Your task to perform on an android device: Open Yahoo.com Image 0: 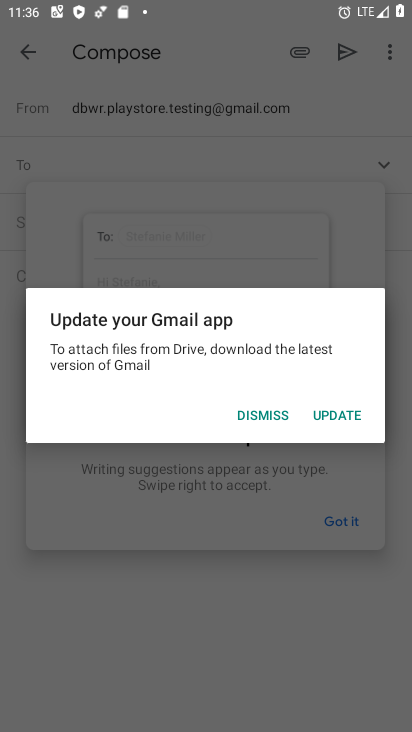
Step 0: press home button
Your task to perform on an android device: Open Yahoo.com Image 1: 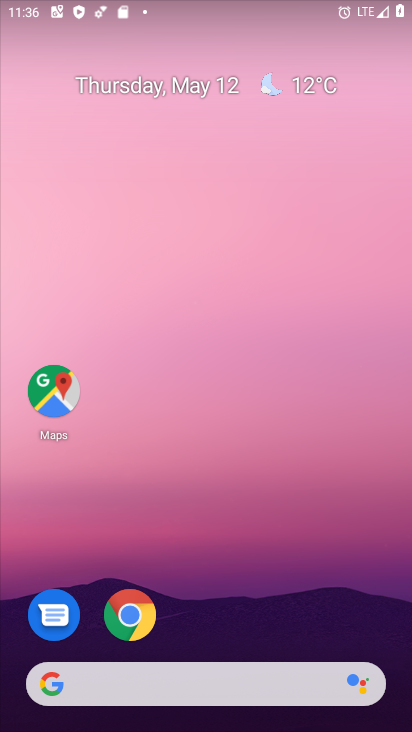
Step 1: click (229, 692)
Your task to perform on an android device: Open Yahoo.com Image 2: 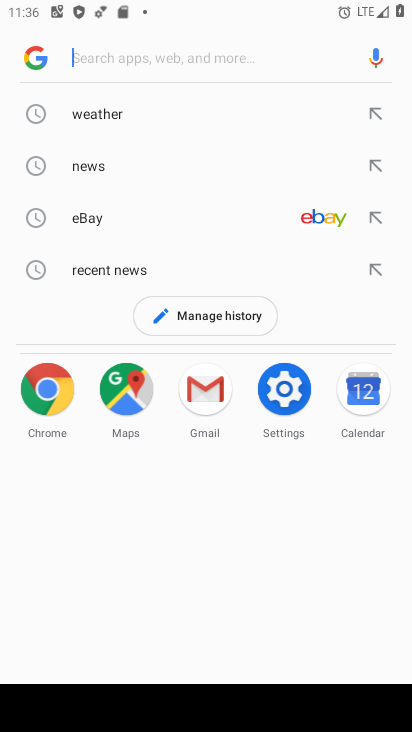
Step 2: type "yahoo.com"
Your task to perform on an android device: Open Yahoo.com Image 3: 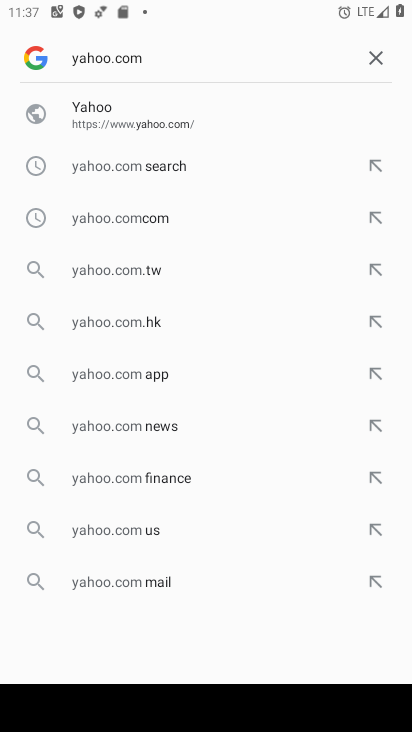
Step 3: click (106, 104)
Your task to perform on an android device: Open Yahoo.com Image 4: 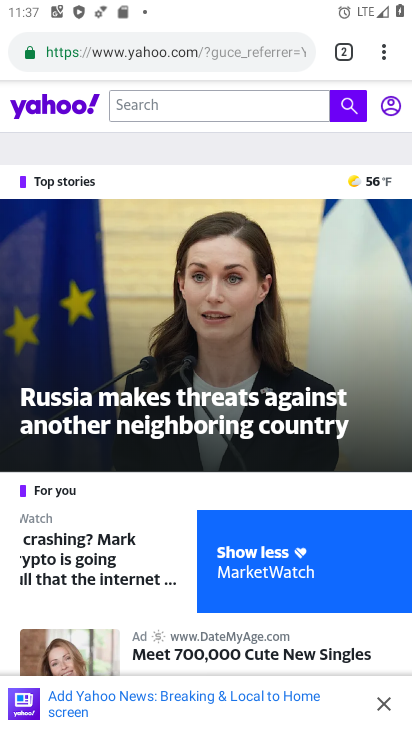
Step 4: task complete